Your task to perform on an android device: Search for the best-rated coffee table on Crate & Barrel Image 0: 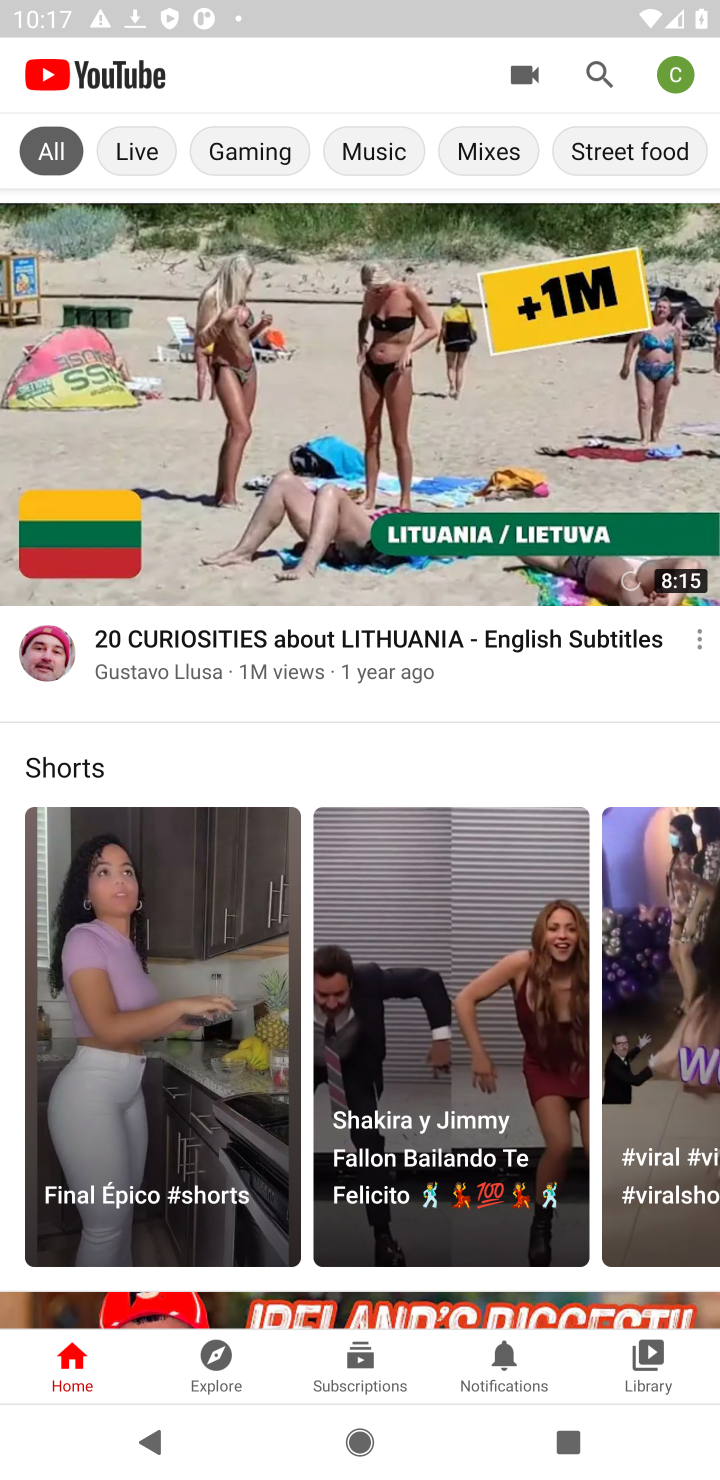
Step 0: press home button
Your task to perform on an android device: Search for the best-rated coffee table on Crate & Barrel Image 1: 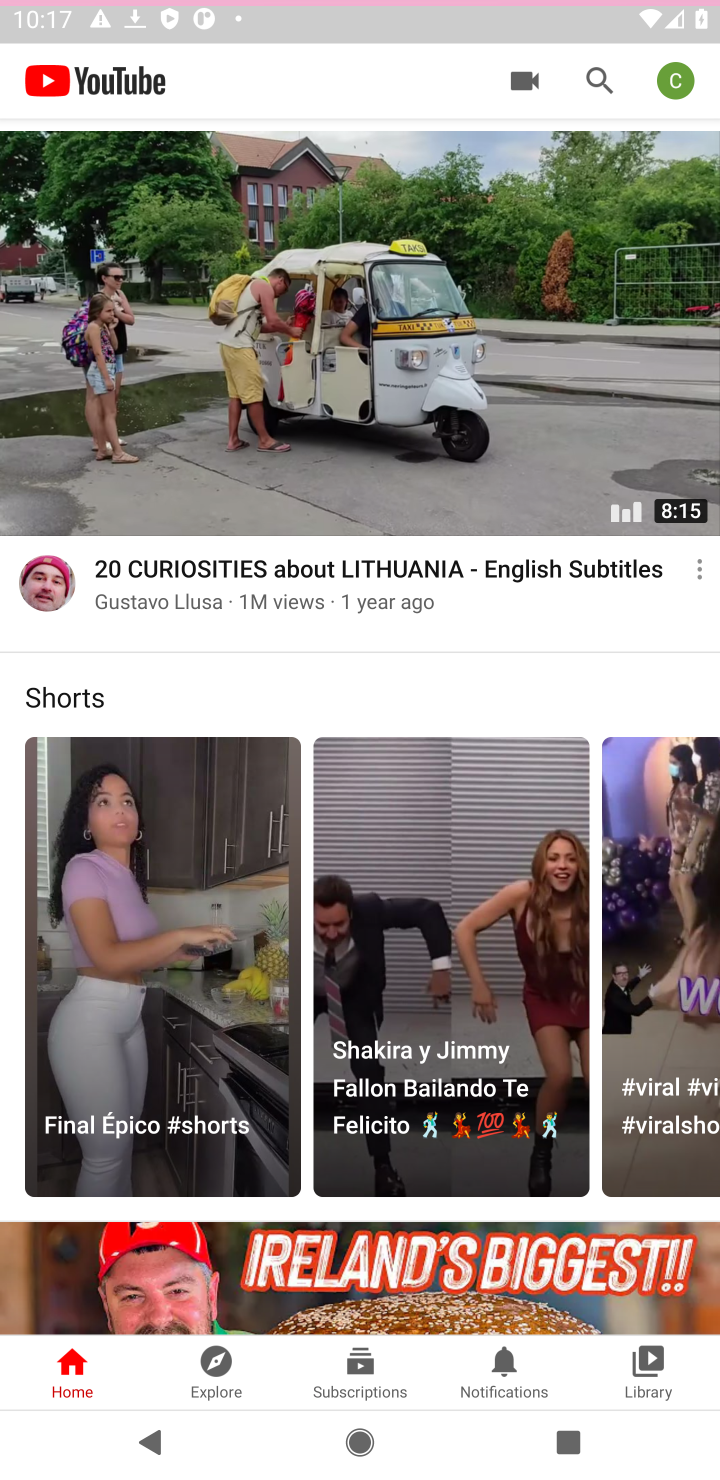
Step 1: press home button
Your task to perform on an android device: Search for the best-rated coffee table on Crate & Barrel Image 2: 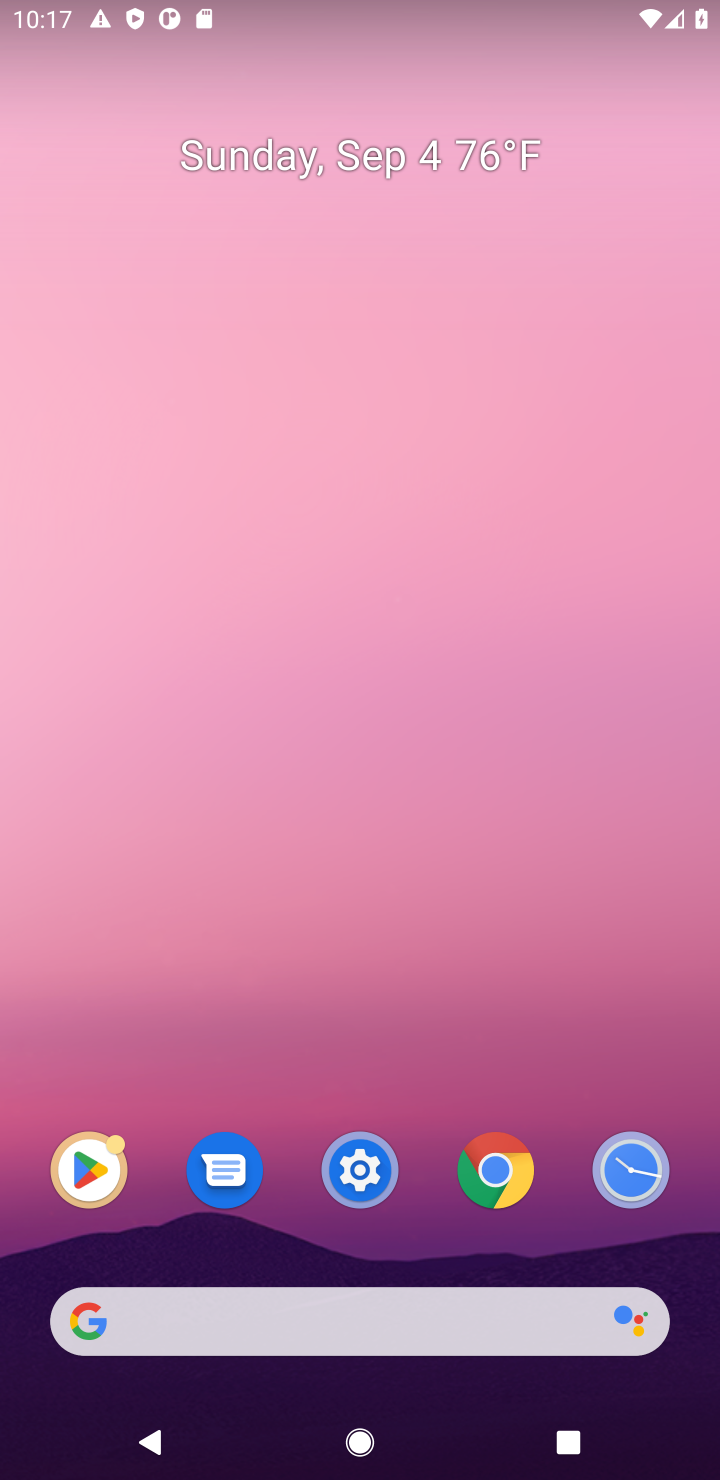
Step 2: click (305, 1330)
Your task to perform on an android device: Search for the best-rated coffee table on Crate & Barrel Image 3: 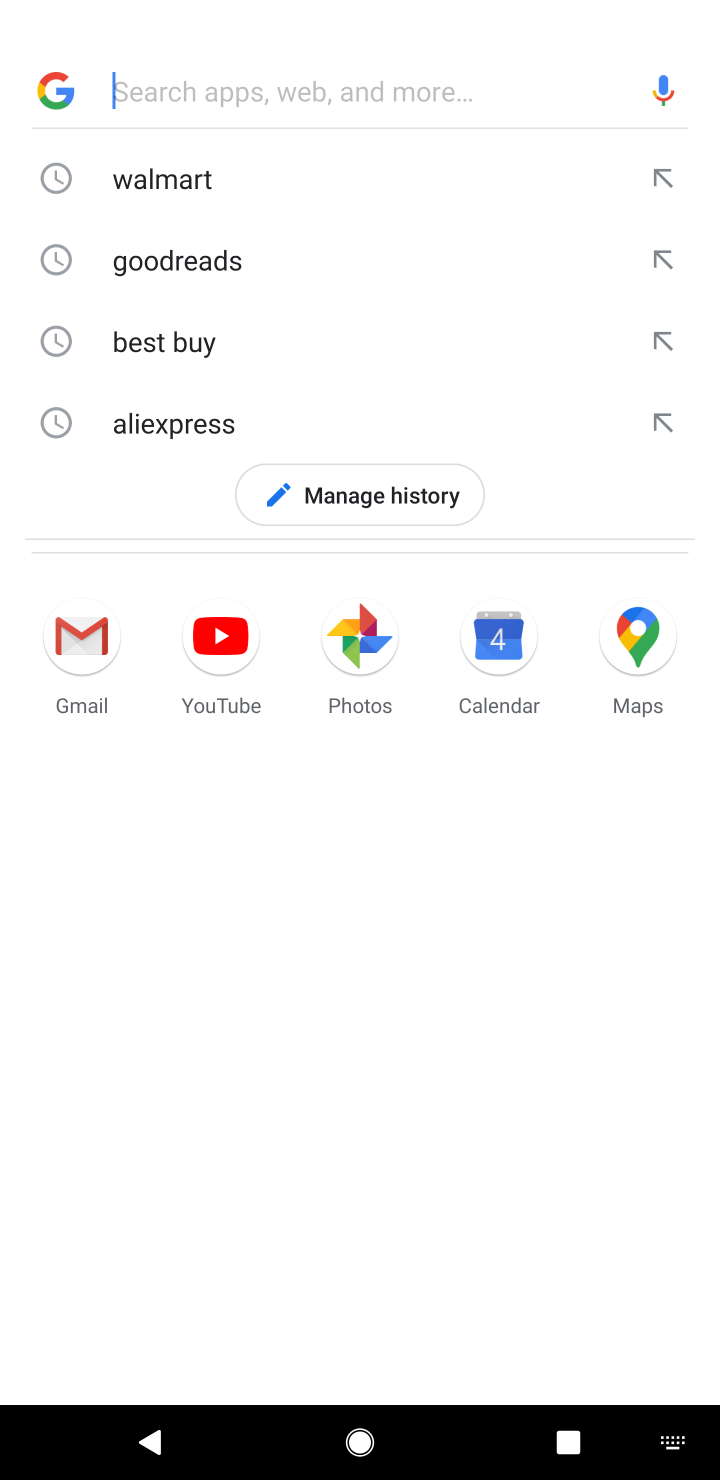
Step 3: type " Crate & Barrel"
Your task to perform on an android device: Search for the best-rated coffee table on Crate & Barrel Image 4: 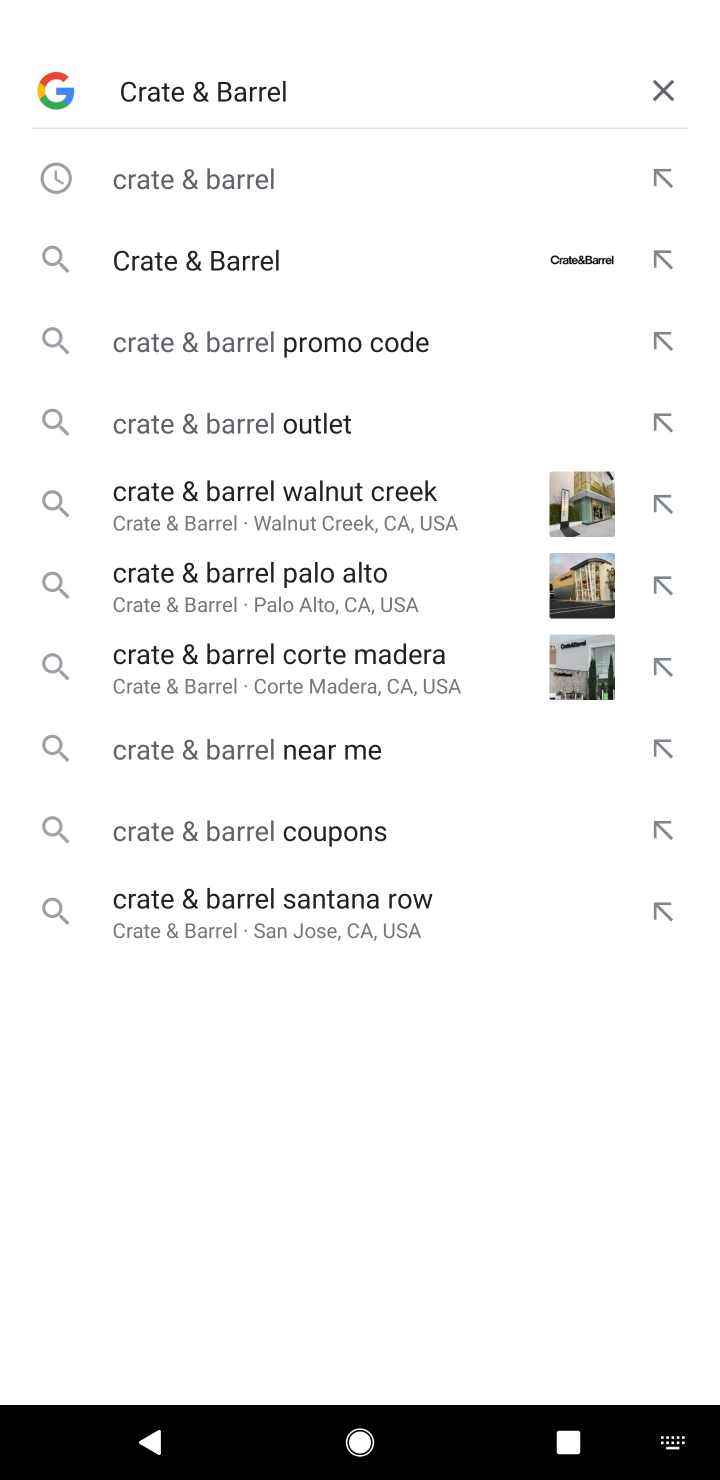
Step 4: click (271, 165)
Your task to perform on an android device: Search for the best-rated coffee table on Crate & Barrel Image 5: 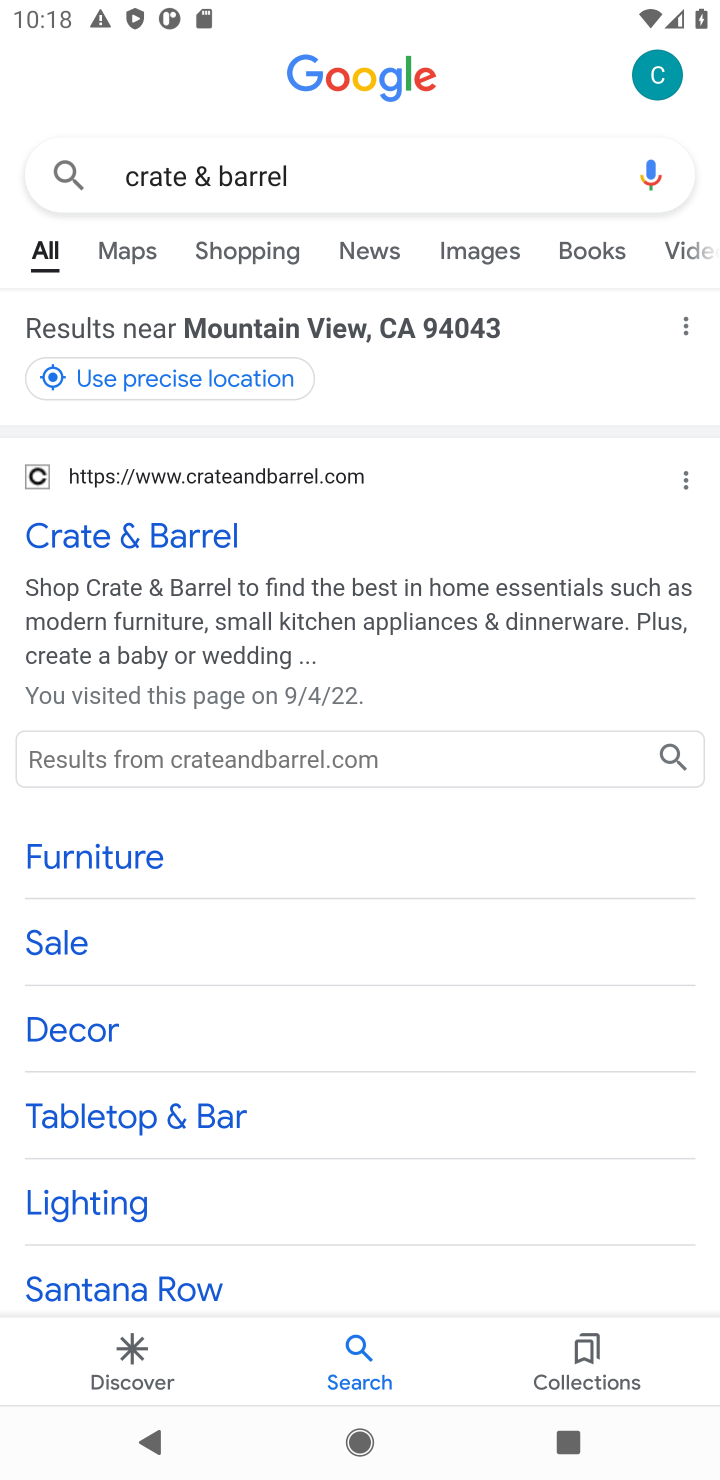
Step 5: click (147, 511)
Your task to perform on an android device: Search for the best-rated coffee table on Crate & Barrel Image 6: 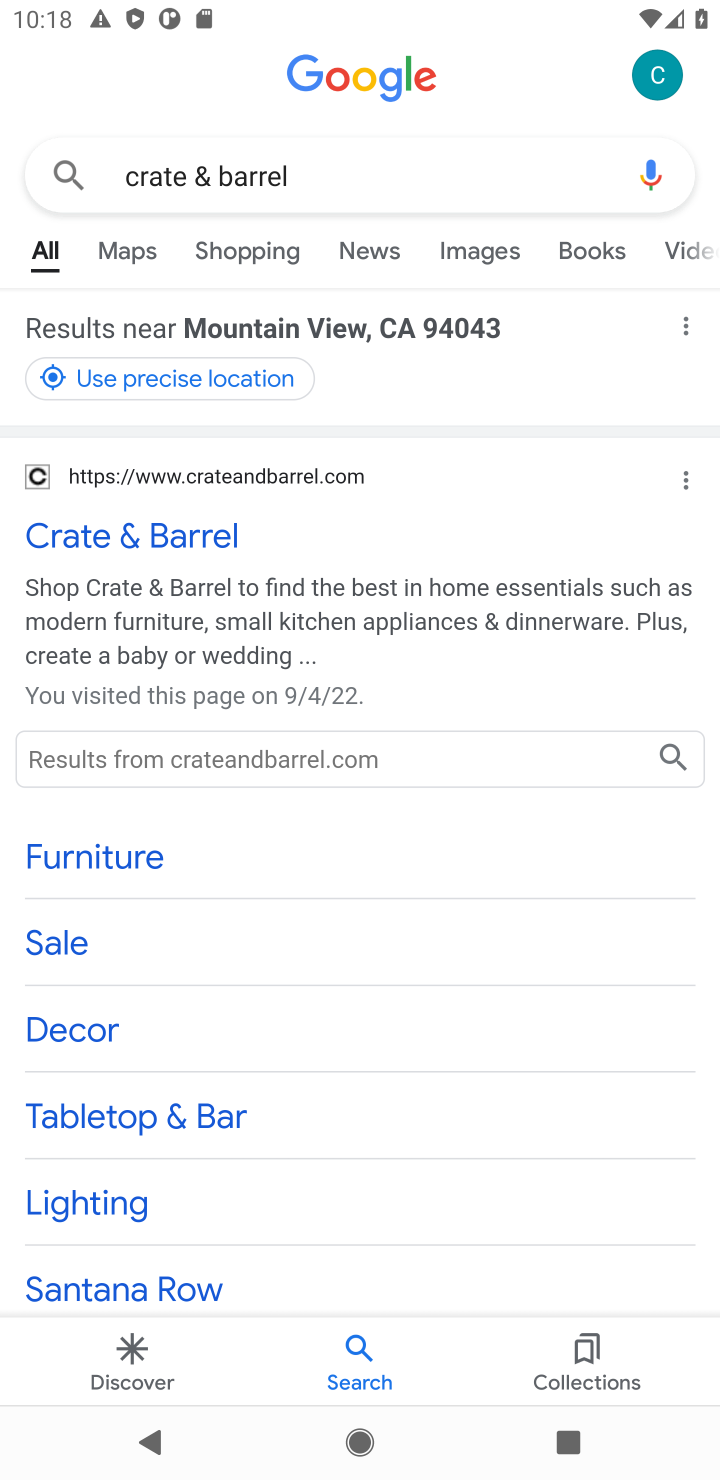
Step 6: click (133, 546)
Your task to perform on an android device: Search for the best-rated coffee table on Crate & Barrel Image 7: 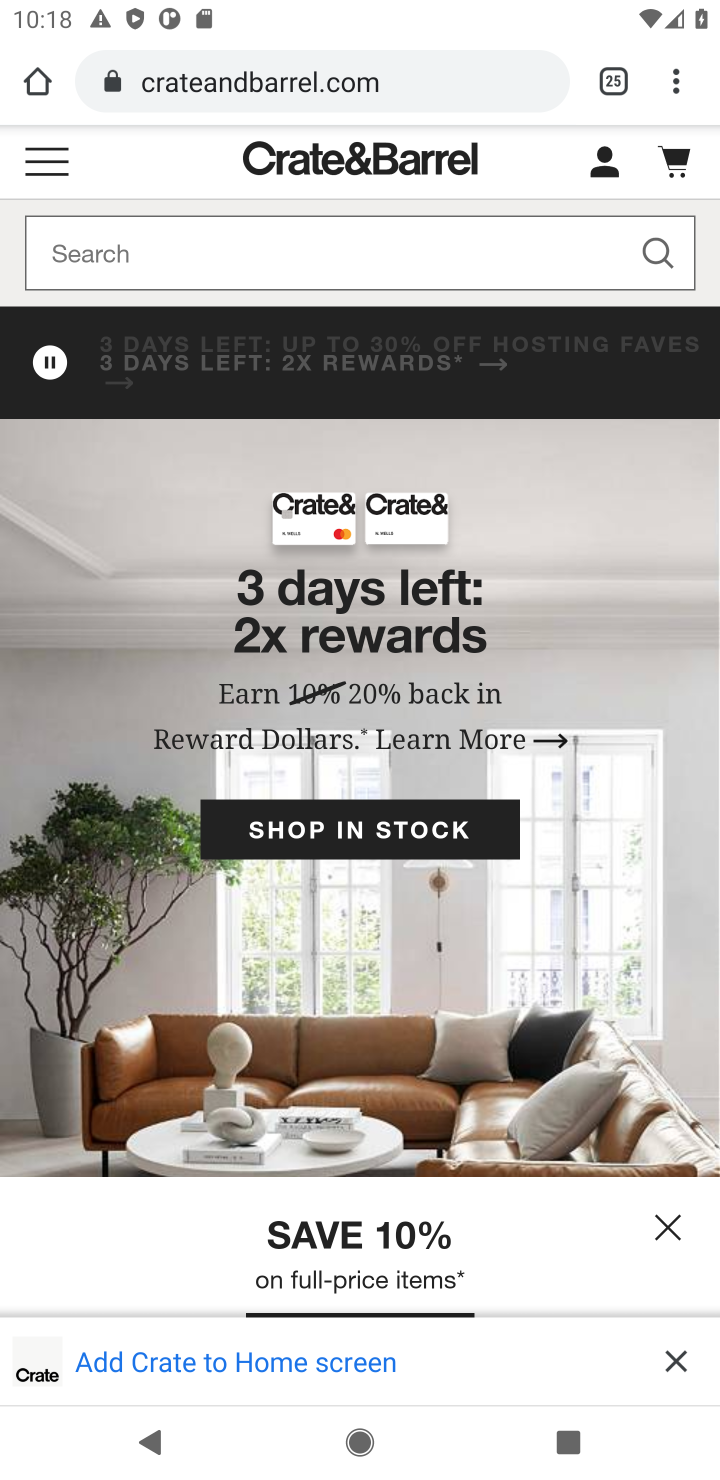
Step 7: click (170, 250)
Your task to perform on an android device: Search for the best-rated coffee table on Crate & Barrel Image 8: 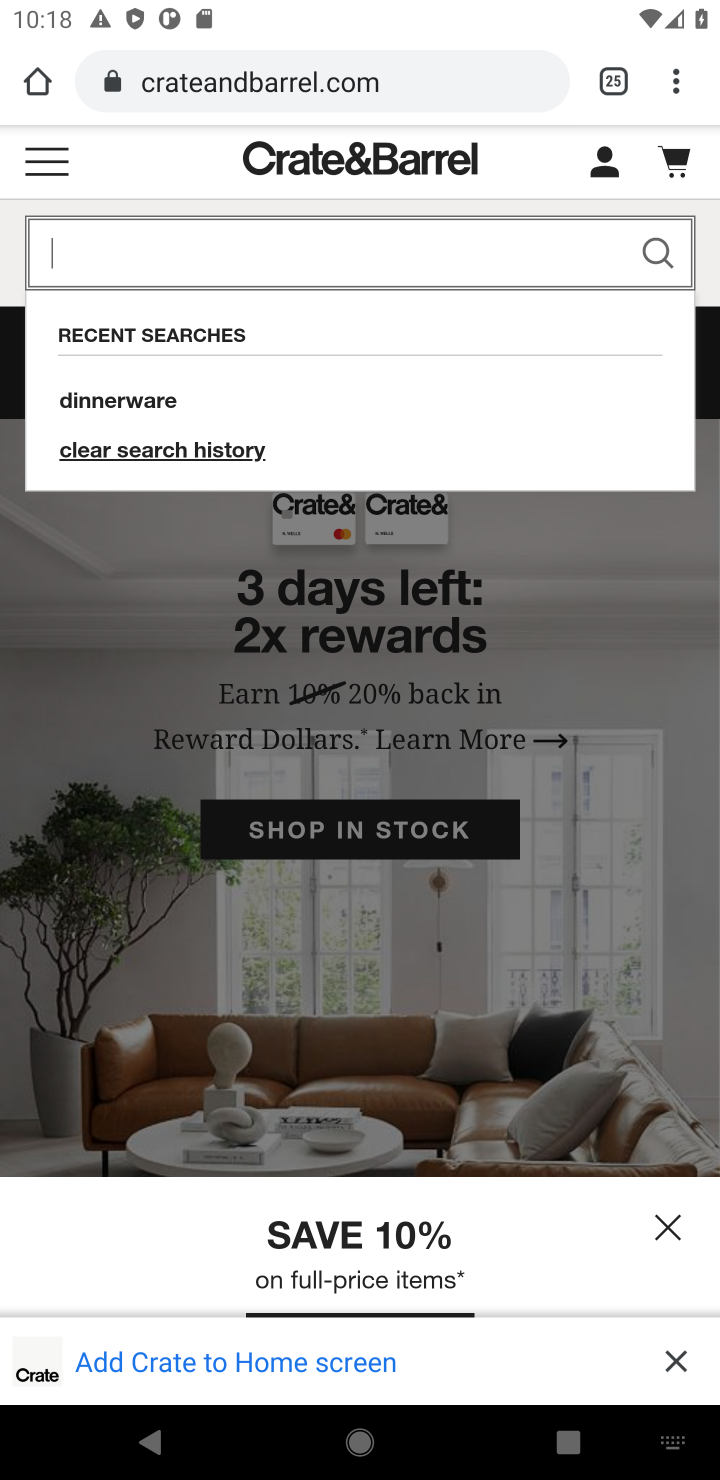
Step 8: type "coffee table"
Your task to perform on an android device: Search for the best-rated coffee table on Crate & Barrel Image 9: 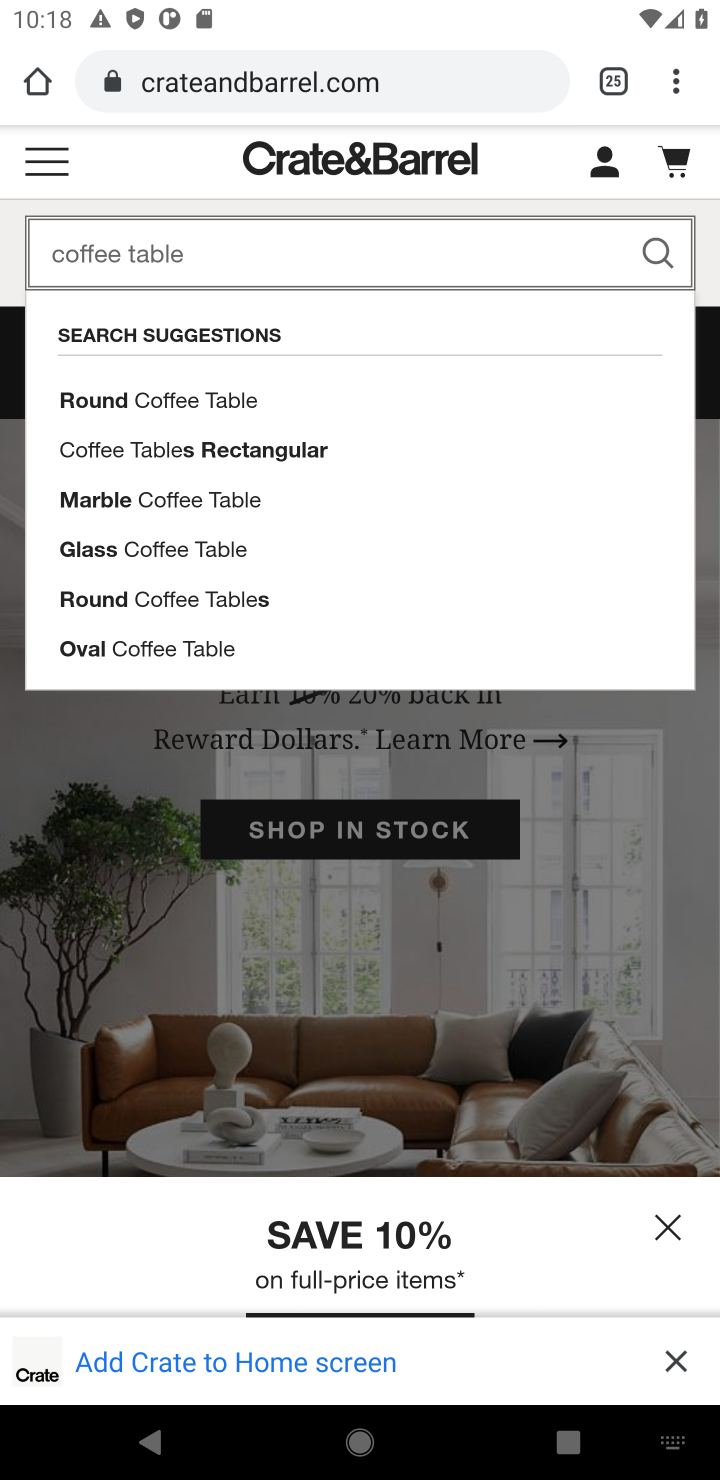
Step 9: click (253, 653)
Your task to perform on an android device: Search for the best-rated coffee table on Crate & Barrel Image 10: 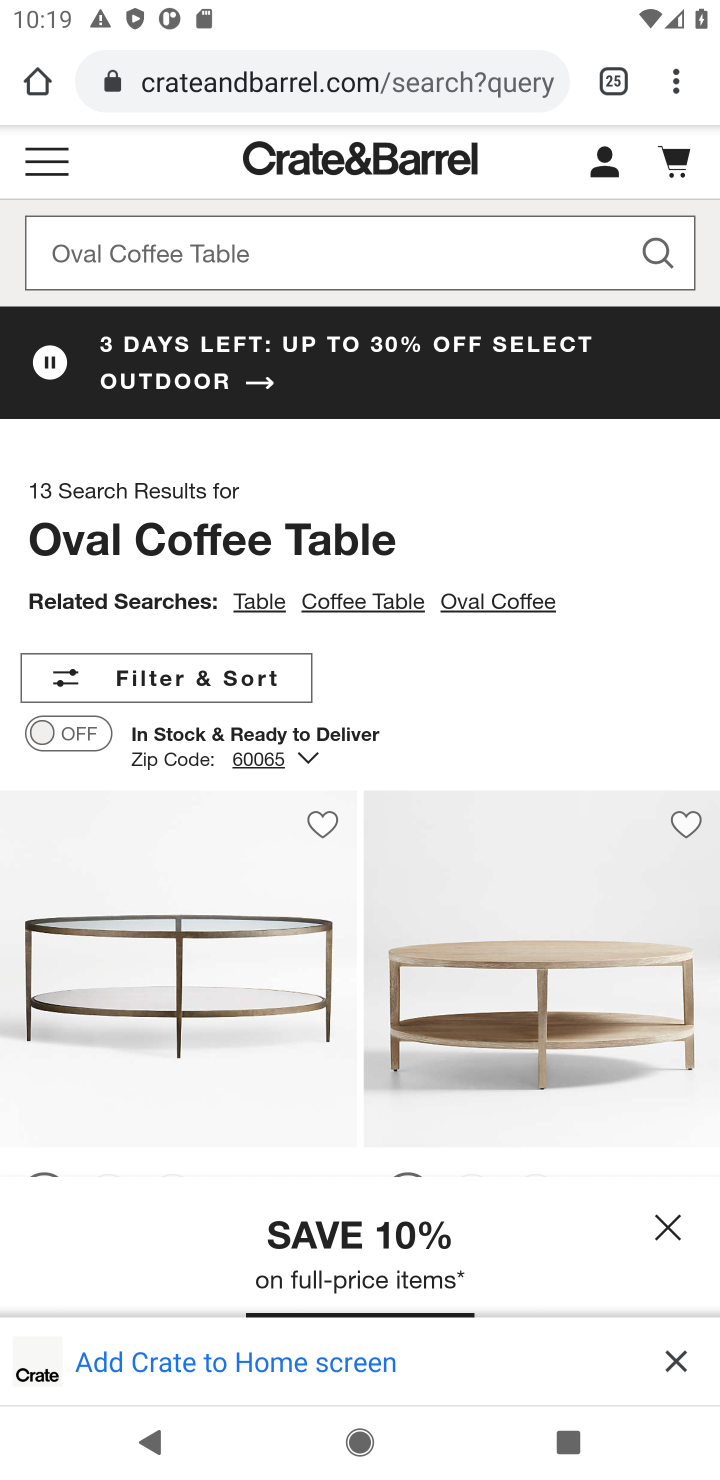
Step 10: task complete